Your task to perform on an android device: Open calendar and show me the first week of next month Image 0: 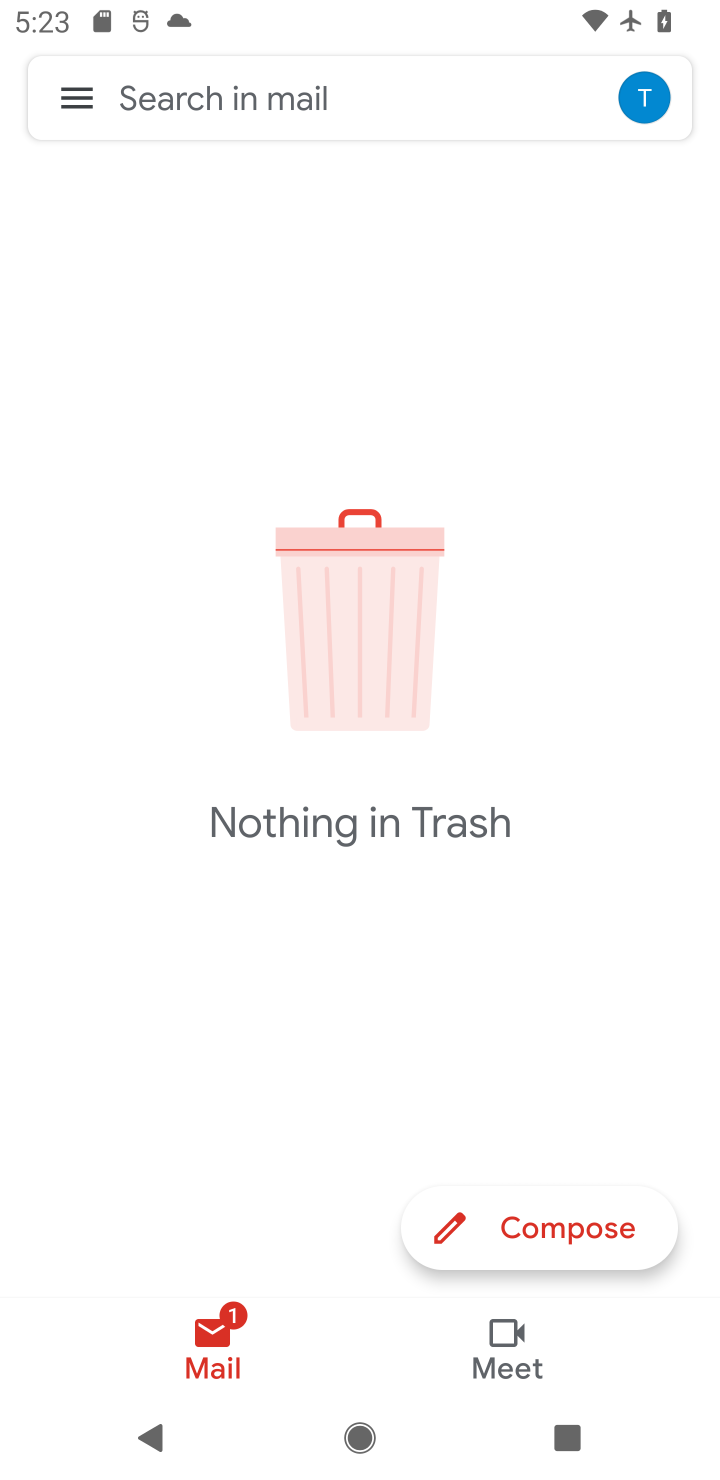
Step 0: press home button
Your task to perform on an android device: Open calendar and show me the first week of next month Image 1: 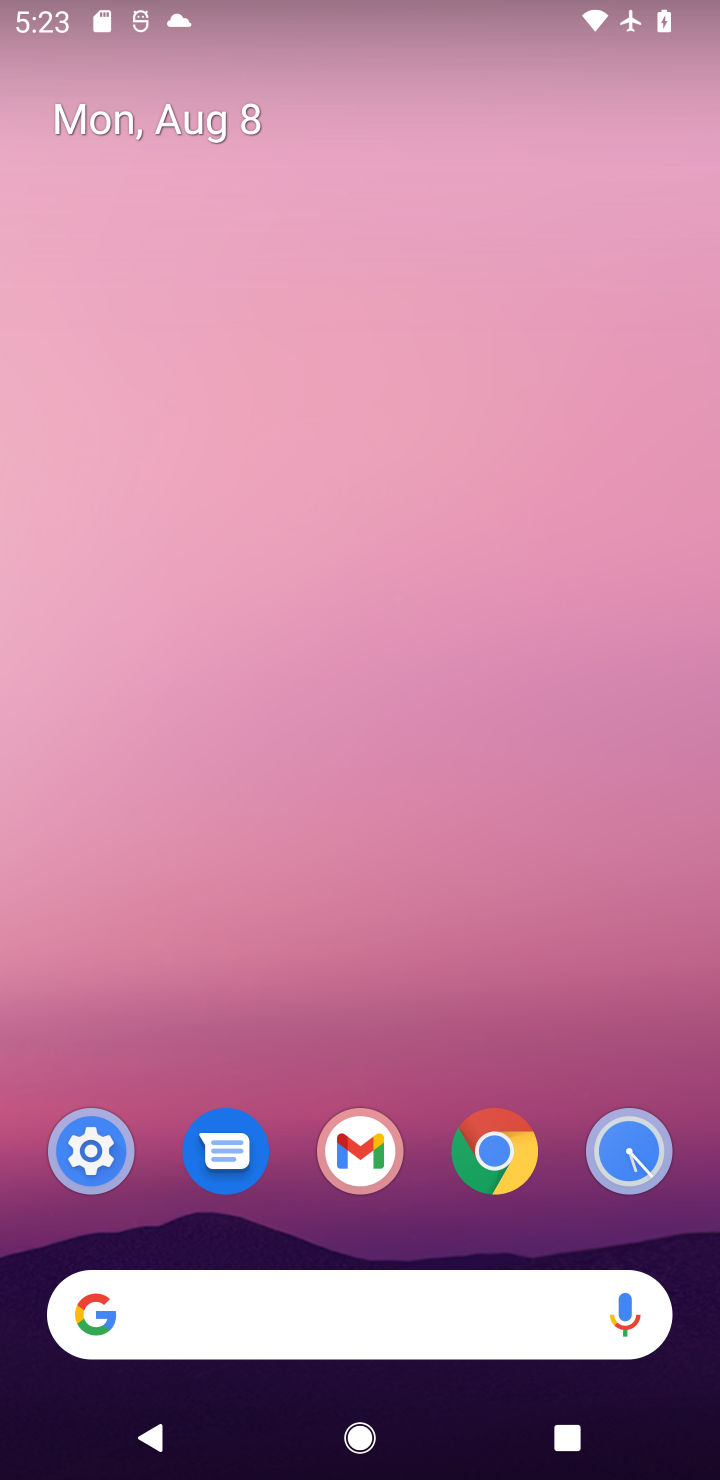
Step 1: drag from (397, 985) to (454, 180)
Your task to perform on an android device: Open calendar and show me the first week of next month Image 2: 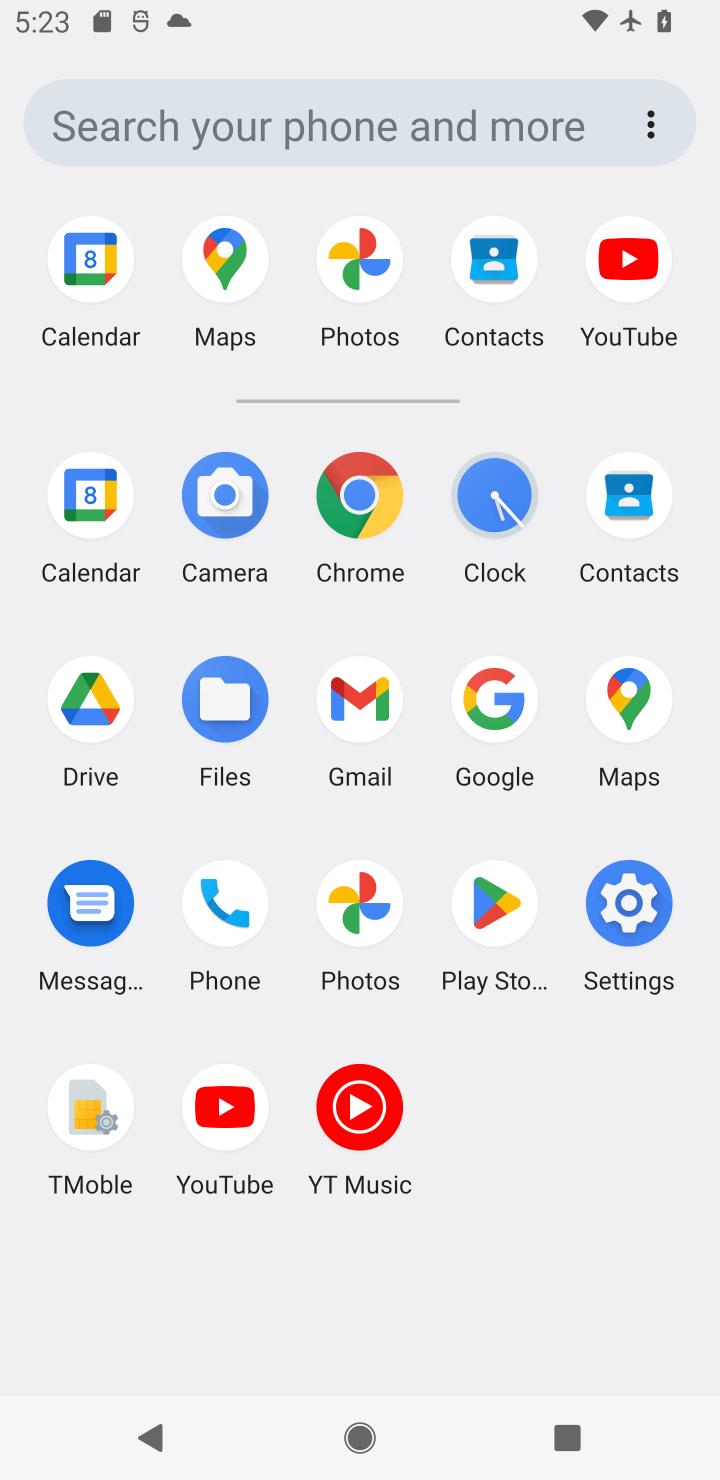
Step 2: click (119, 310)
Your task to perform on an android device: Open calendar and show me the first week of next month Image 3: 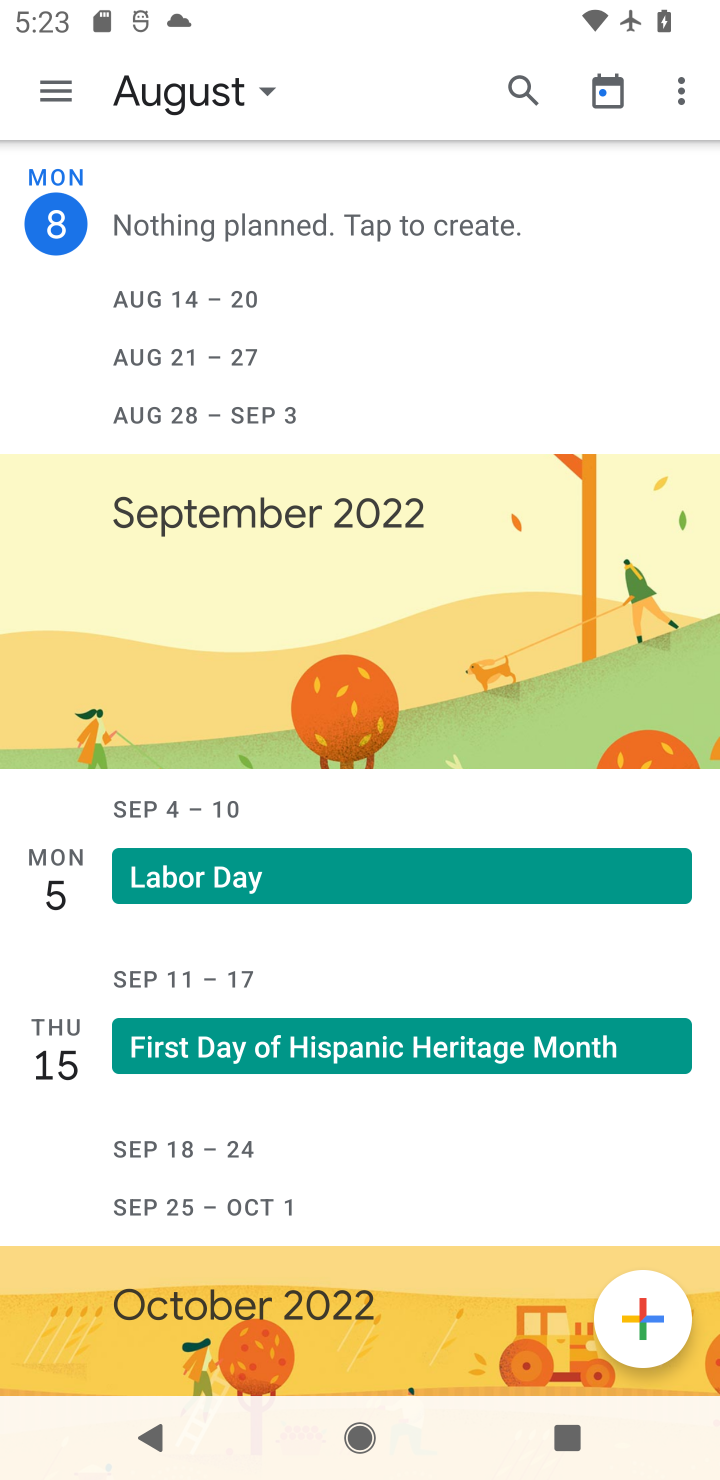
Step 3: click (219, 88)
Your task to perform on an android device: Open calendar and show me the first week of next month Image 4: 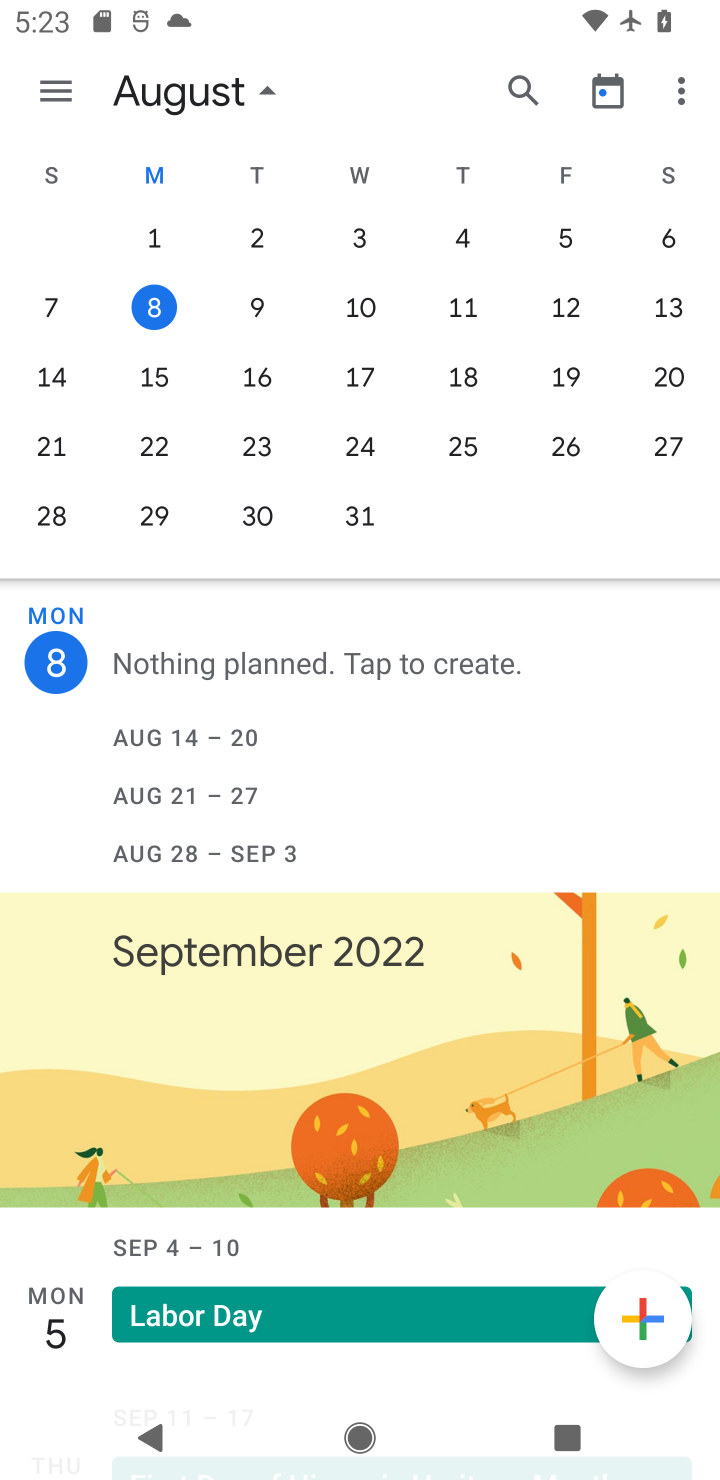
Step 4: drag from (601, 296) to (16, 301)
Your task to perform on an android device: Open calendar and show me the first week of next month Image 5: 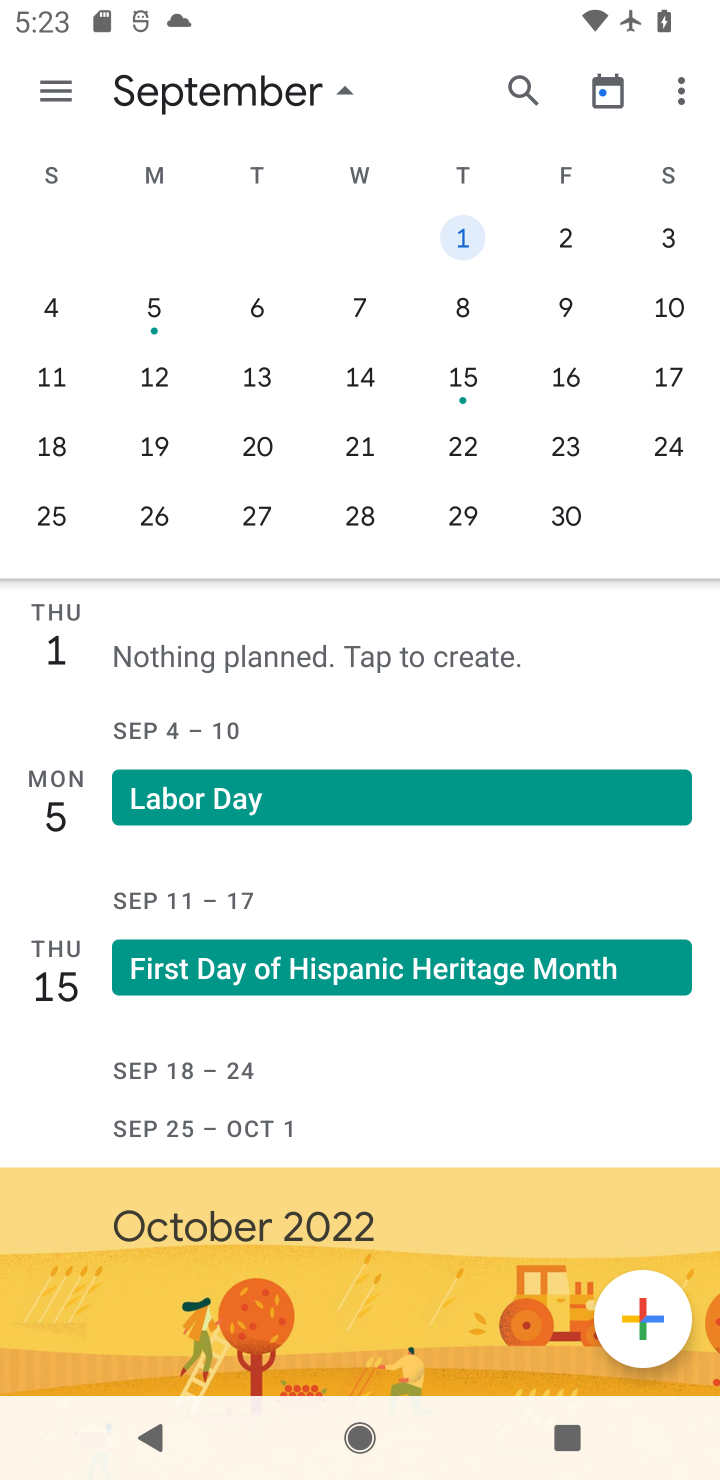
Step 5: click (461, 231)
Your task to perform on an android device: Open calendar and show me the first week of next month Image 6: 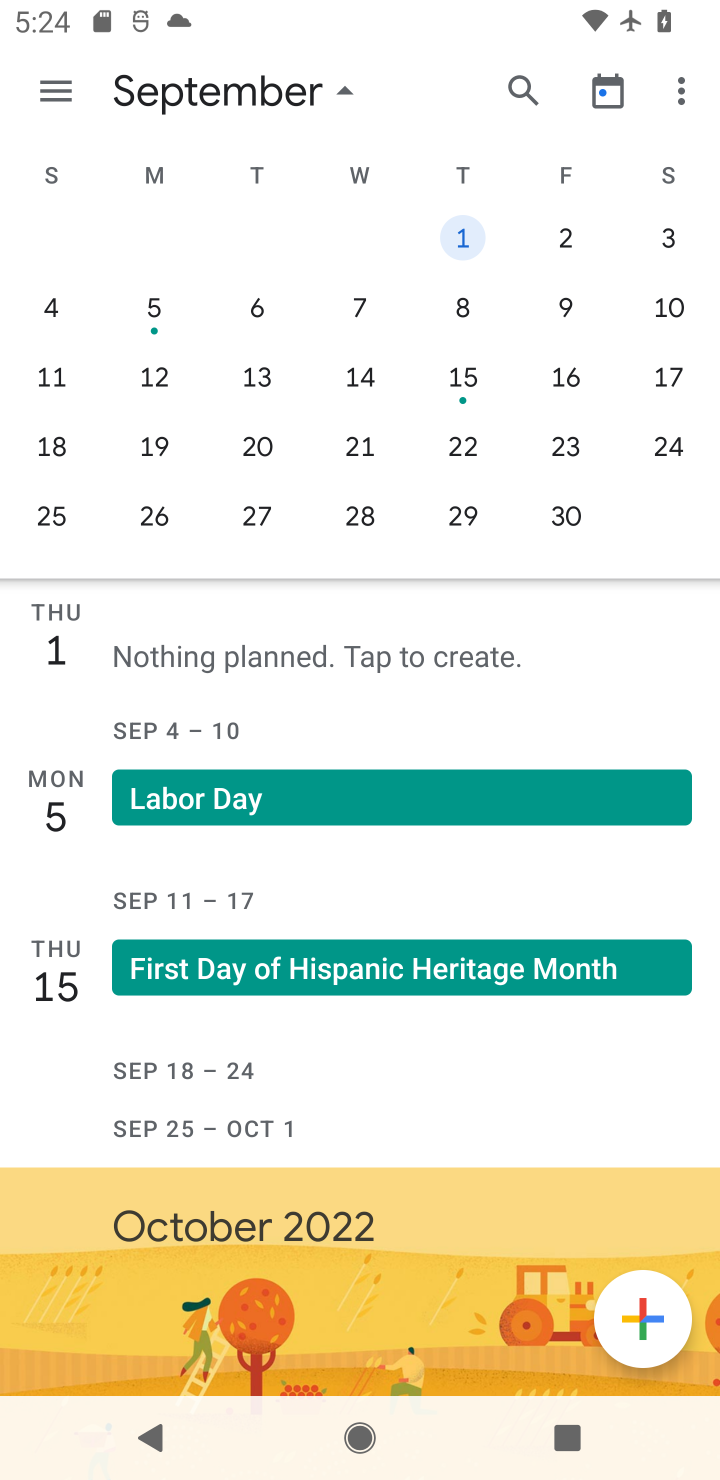
Step 6: click (466, 233)
Your task to perform on an android device: Open calendar and show me the first week of next month Image 7: 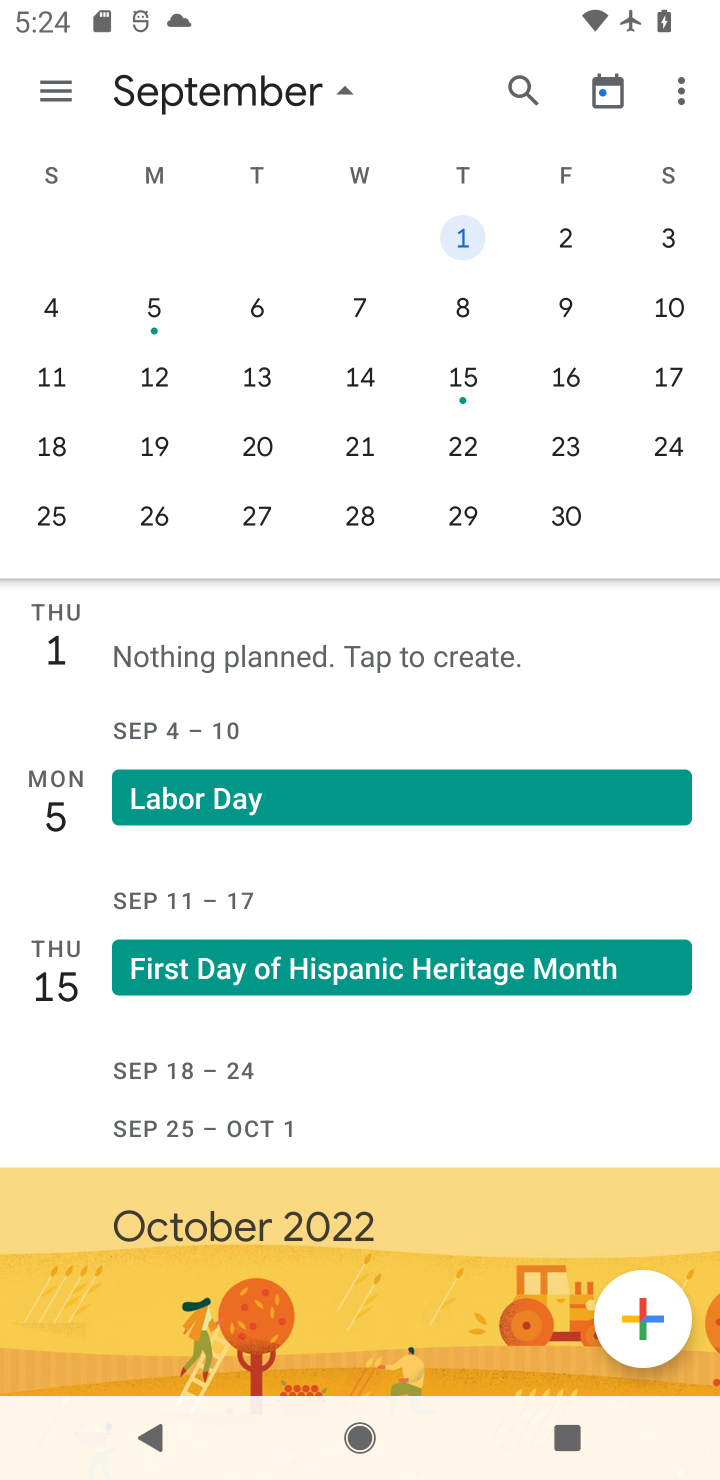
Step 7: task complete